Your task to perform on an android device: Search for "energizer triple a" on amazon, select the first entry, add it to the cart, then select checkout. Image 0: 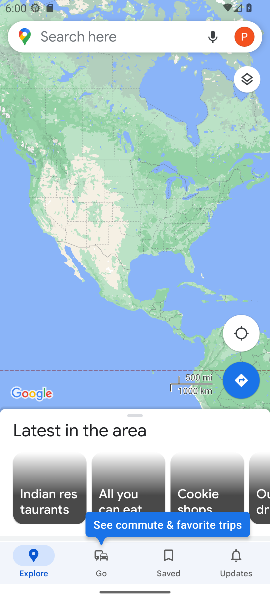
Step 0: press home button
Your task to perform on an android device: Search for "energizer triple a" on amazon, select the first entry, add it to the cart, then select checkout. Image 1: 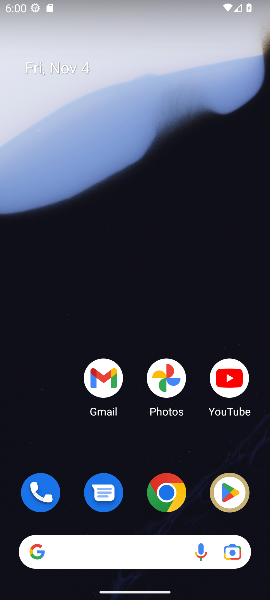
Step 1: drag from (142, 452) to (156, 3)
Your task to perform on an android device: Search for "energizer triple a" on amazon, select the first entry, add it to the cart, then select checkout. Image 2: 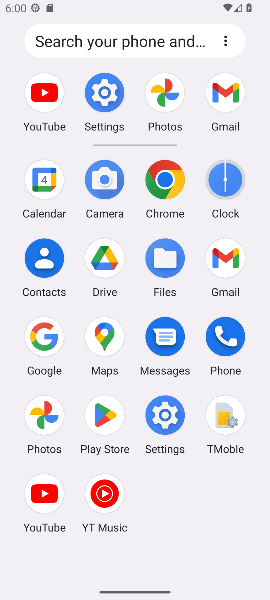
Step 2: click (167, 182)
Your task to perform on an android device: Search for "energizer triple a" on amazon, select the first entry, add it to the cart, then select checkout. Image 3: 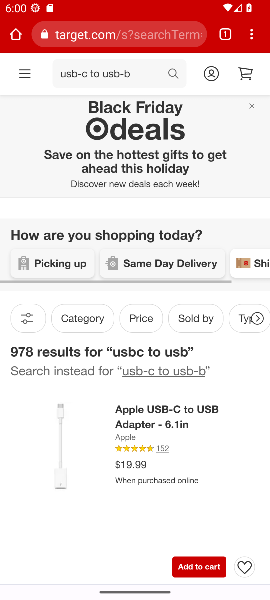
Step 3: click (146, 34)
Your task to perform on an android device: Search for "energizer triple a" on amazon, select the first entry, add it to the cart, then select checkout. Image 4: 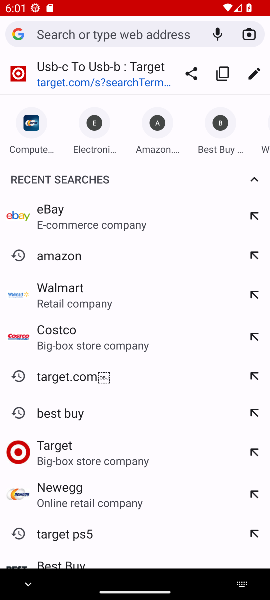
Step 4: type "amazon.com"
Your task to perform on an android device: Search for "energizer triple a" on amazon, select the first entry, add it to the cart, then select checkout. Image 5: 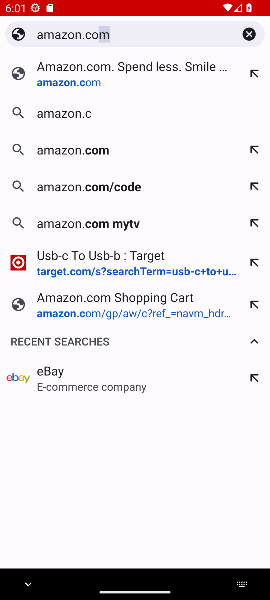
Step 5: press enter
Your task to perform on an android device: Search for "energizer triple a" on amazon, select the first entry, add it to the cart, then select checkout. Image 6: 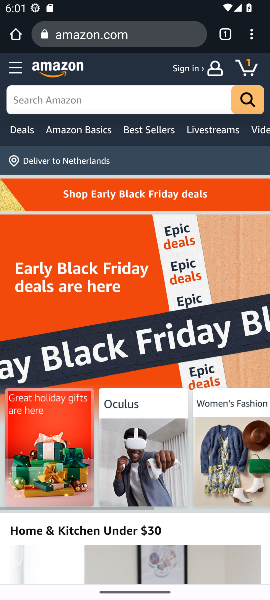
Step 6: click (144, 99)
Your task to perform on an android device: Search for "energizer triple a" on amazon, select the first entry, add it to the cart, then select checkout. Image 7: 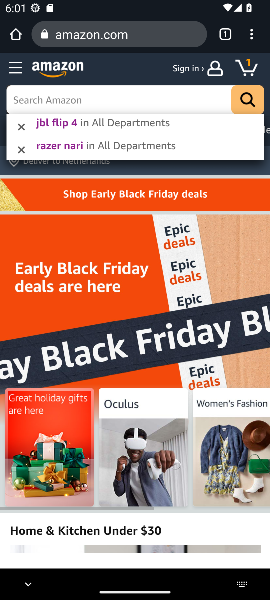
Step 7: type "energizer triple a"
Your task to perform on an android device: Search for "energizer triple a" on amazon, select the first entry, add it to the cart, then select checkout. Image 8: 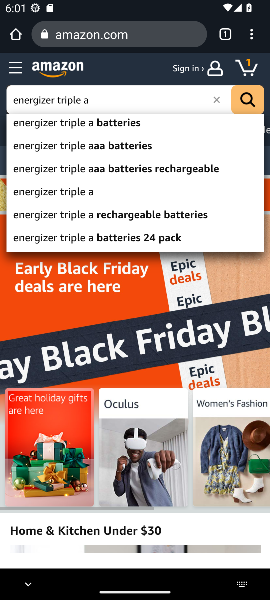
Step 8: press enter
Your task to perform on an android device: Search for "energizer triple a" on amazon, select the first entry, add it to the cart, then select checkout. Image 9: 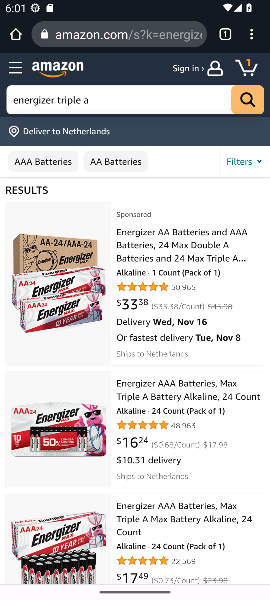
Step 9: click (175, 399)
Your task to perform on an android device: Search for "energizer triple a" on amazon, select the first entry, add it to the cart, then select checkout. Image 10: 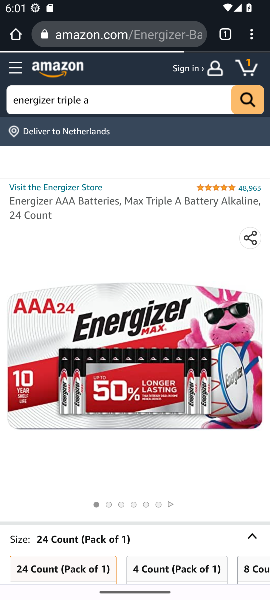
Step 10: drag from (150, 454) to (131, 105)
Your task to perform on an android device: Search for "energizer triple a" on amazon, select the first entry, add it to the cart, then select checkout. Image 11: 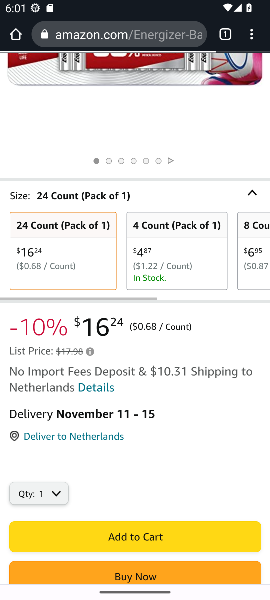
Step 11: drag from (142, 447) to (151, 170)
Your task to perform on an android device: Search for "energizer triple a" on amazon, select the first entry, add it to the cart, then select checkout. Image 12: 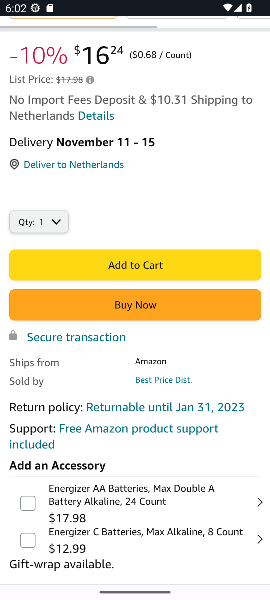
Step 12: click (209, 263)
Your task to perform on an android device: Search for "energizer triple a" on amazon, select the first entry, add it to the cart, then select checkout. Image 13: 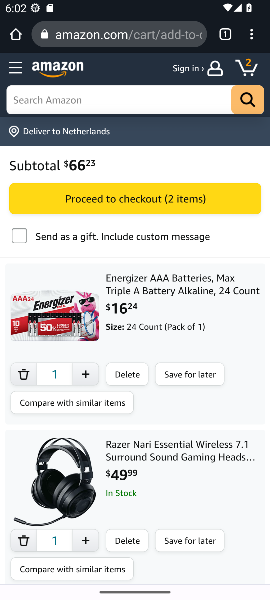
Step 13: click (171, 193)
Your task to perform on an android device: Search for "energizer triple a" on amazon, select the first entry, add it to the cart, then select checkout. Image 14: 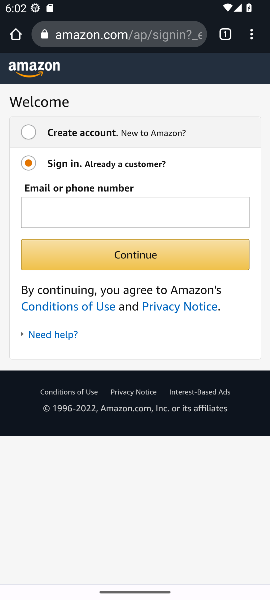
Step 14: task complete